Your task to perform on an android device: Open my contact list Image 0: 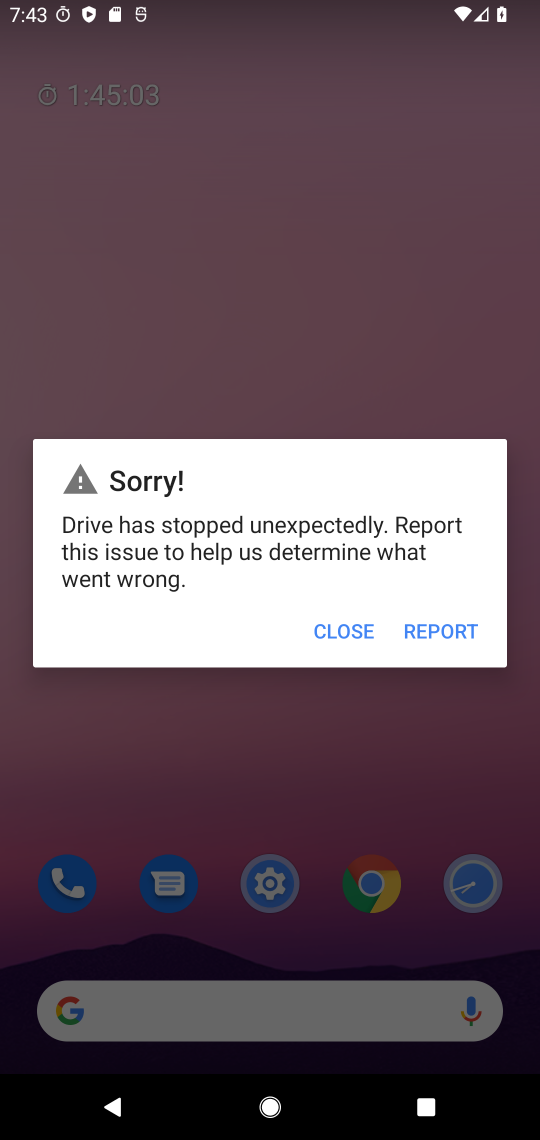
Step 0: click (333, 630)
Your task to perform on an android device: Open my contact list Image 1: 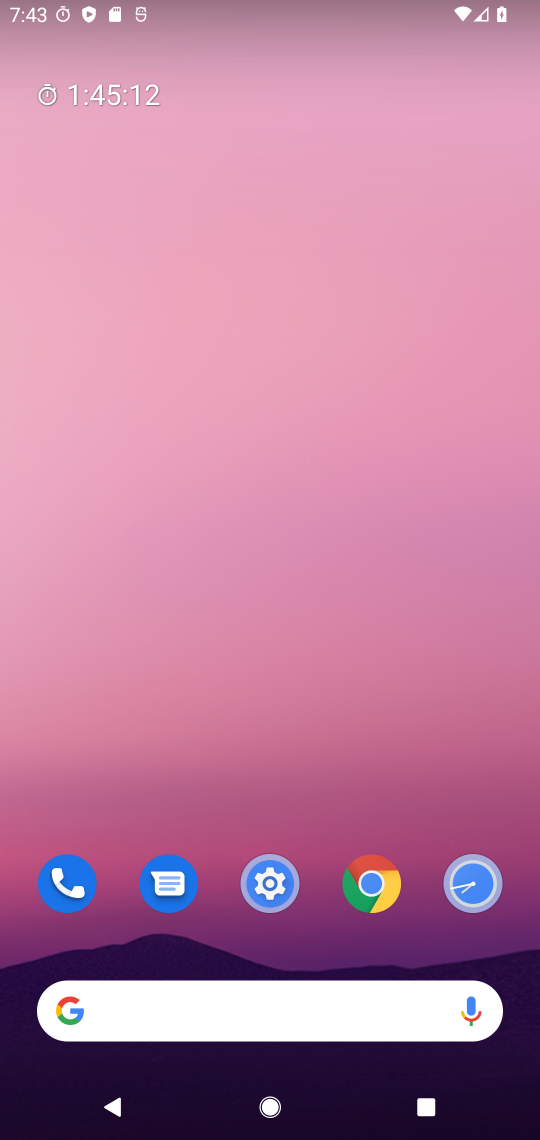
Step 1: drag from (272, 783) to (277, 178)
Your task to perform on an android device: Open my contact list Image 2: 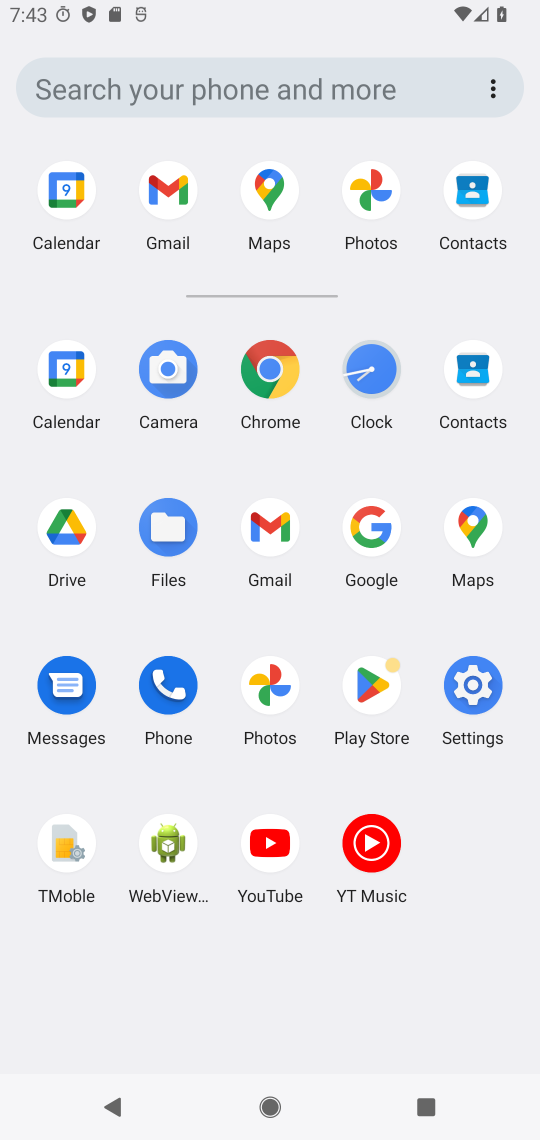
Step 2: click (480, 382)
Your task to perform on an android device: Open my contact list Image 3: 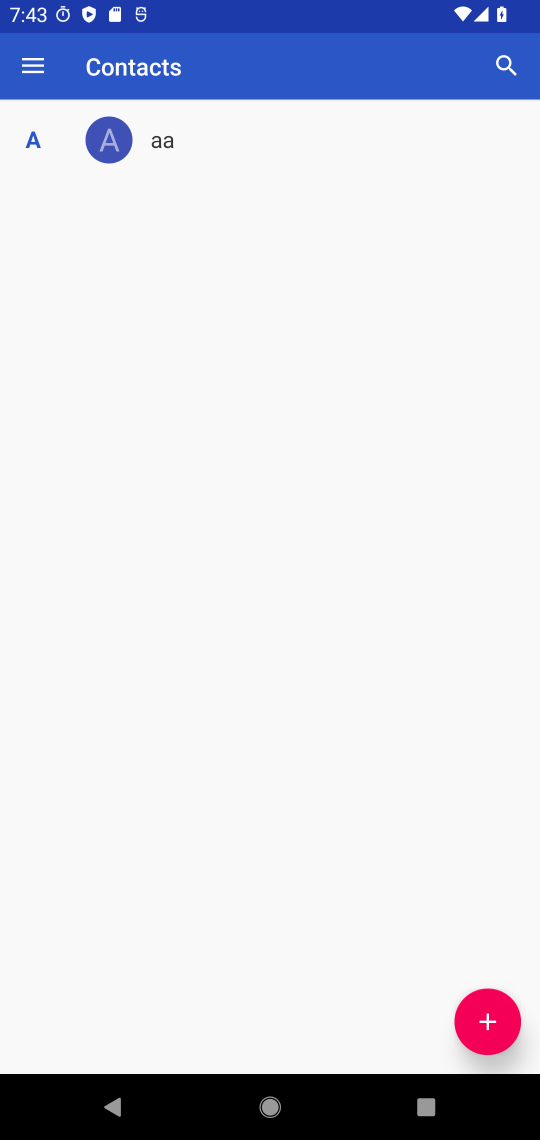
Step 3: task complete